Your task to perform on an android device: Open ESPN.com Image 0: 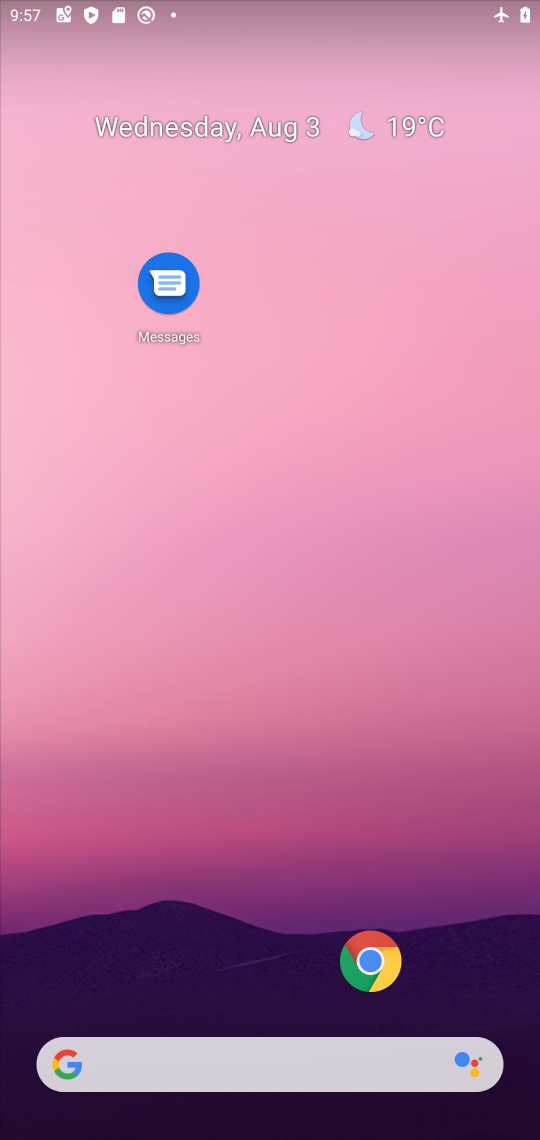
Step 0: click (358, 972)
Your task to perform on an android device: Open ESPN.com Image 1: 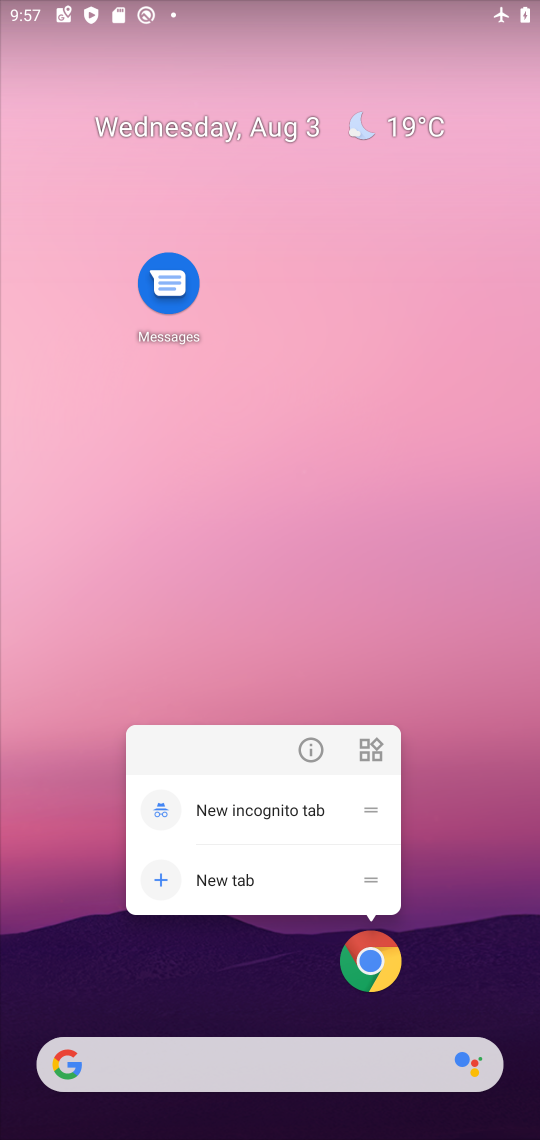
Step 1: click (402, 979)
Your task to perform on an android device: Open ESPN.com Image 2: 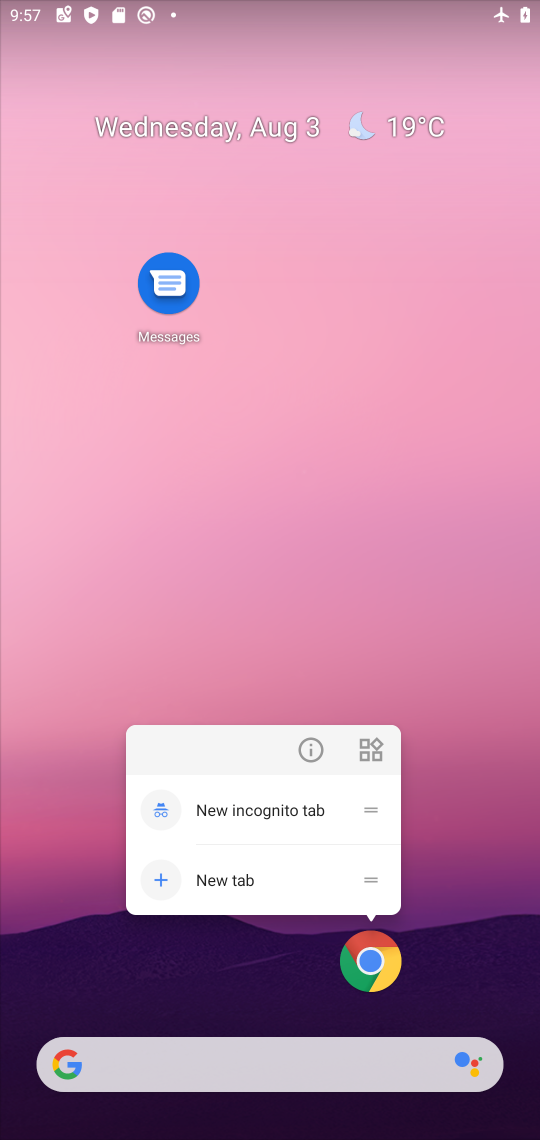
Step 2: click (397, 971)
Your task to perform on an android device: Open ESPN.com Image 3: 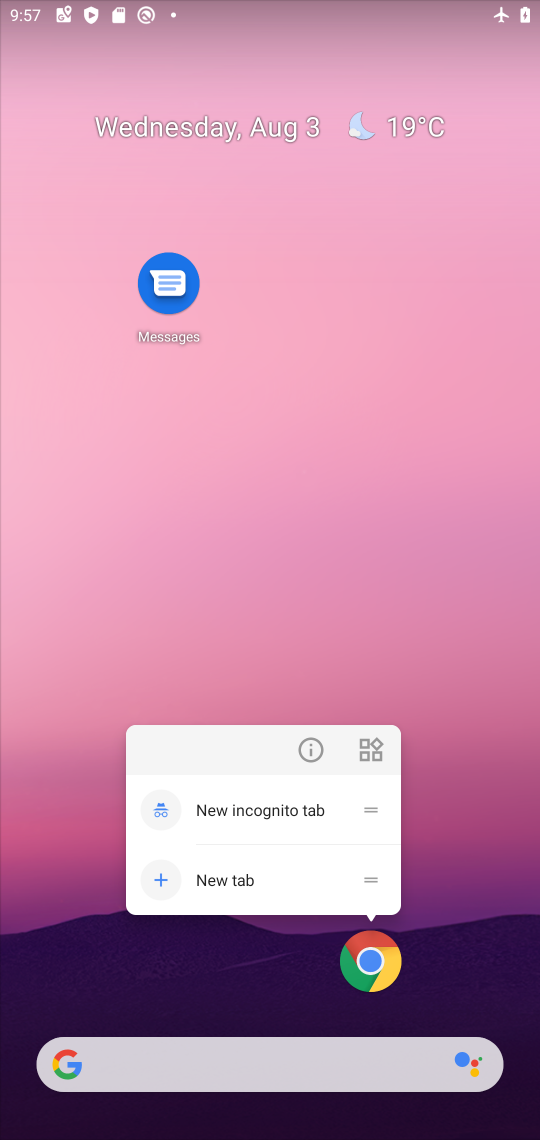
Step 3: click (377, 965)
Your task to perform on an android device: Open ESPN.com Image 4: 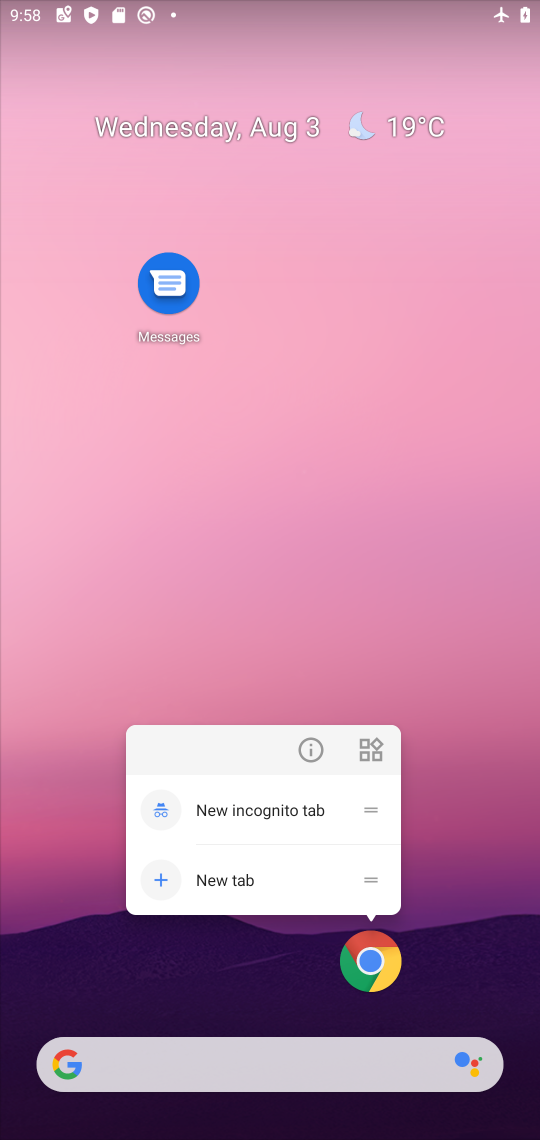
Step 4: click (377, 965)
Your task to perform on an android device: Open ESPN.com Image 5: 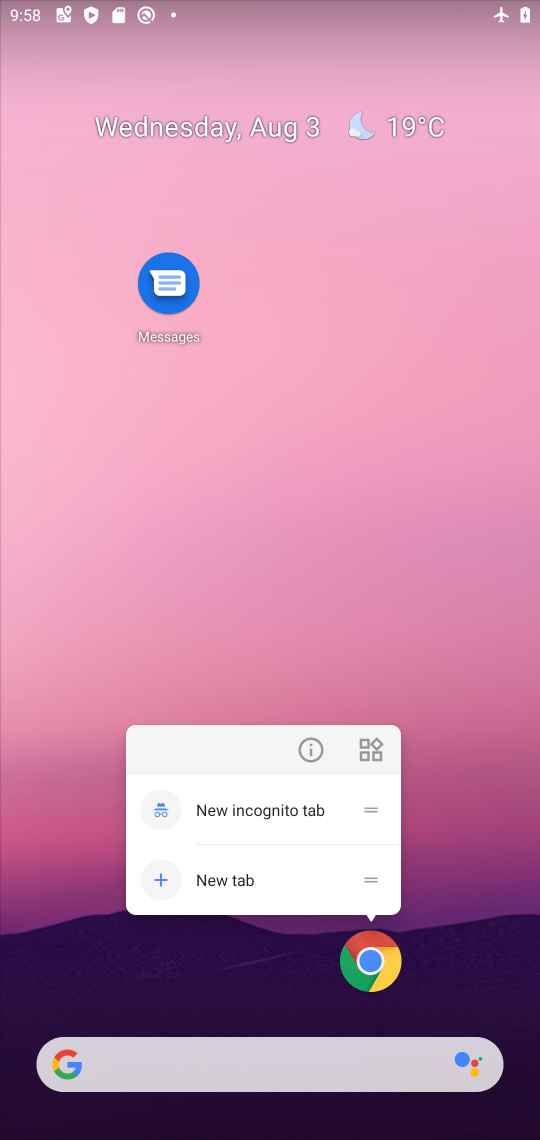
Step 5: click (376, 963)
Your task to perform on an android device: Open ESPN.com Image 6: 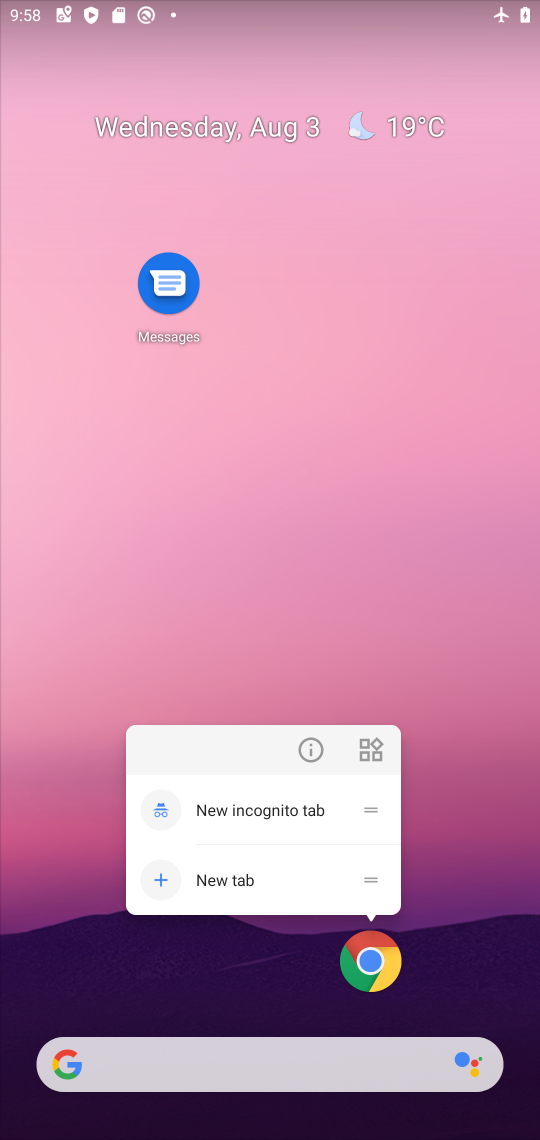
Step 6: click (392, 942)
Your task to perform on an android device: Open ESPN.com Image 7: 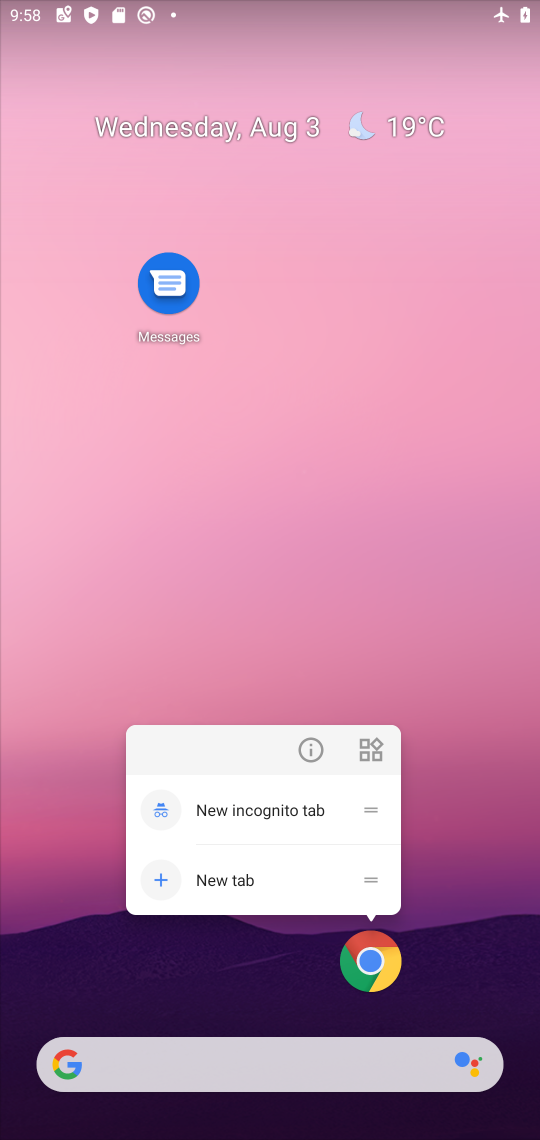
Step 7: click (392, 941)
Your task to perform on an android device: Open ESPN.com Image 8: 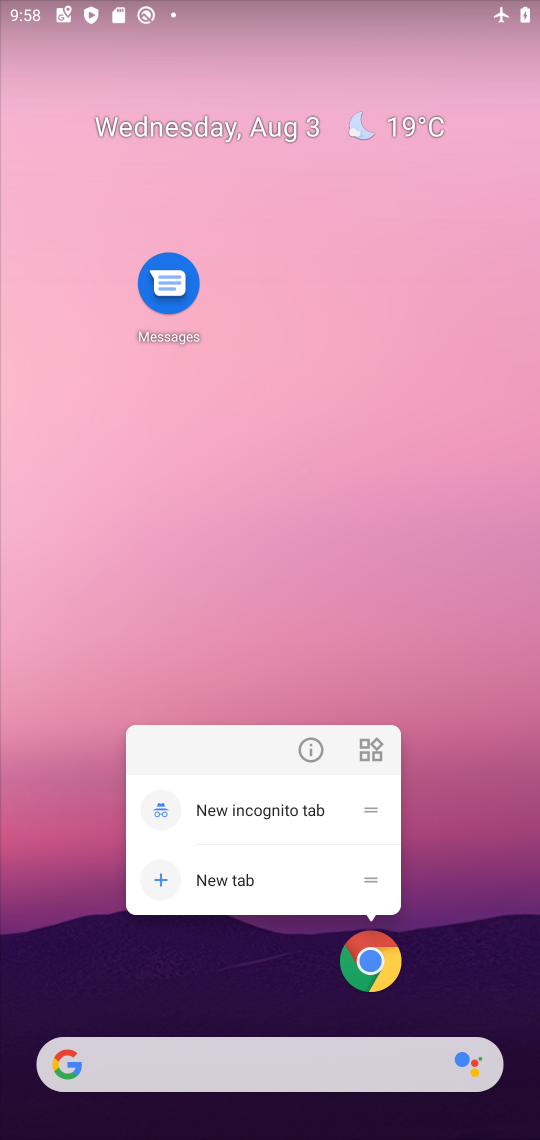
Step 8: click (392, 941)
Your task to perform on an android device: Open ESPN.com Image 9: 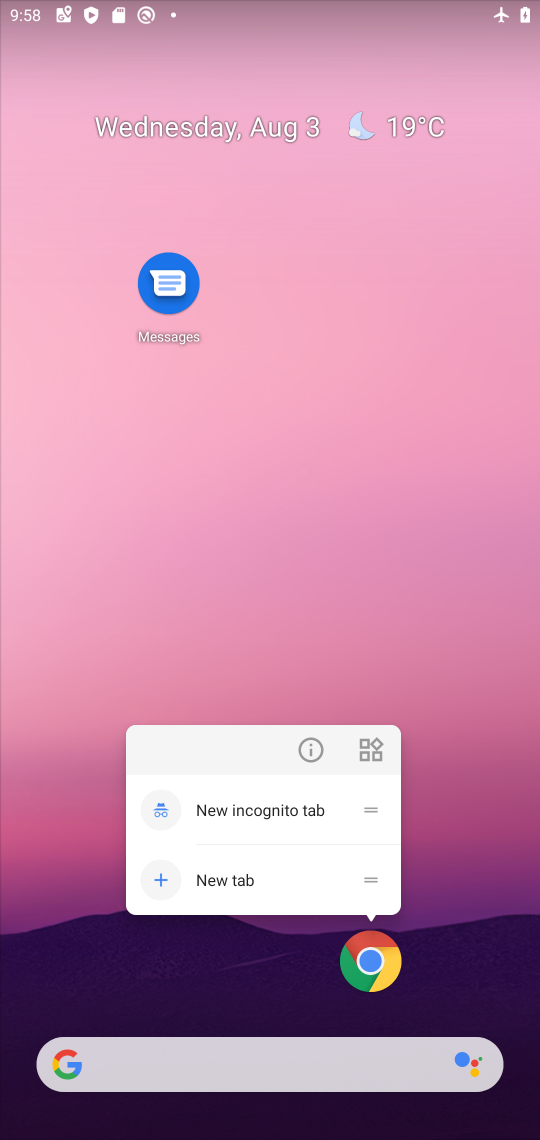
Step 9: click (390, 968)
Your task to perform on an android device: Open ESPN.com Image 10: 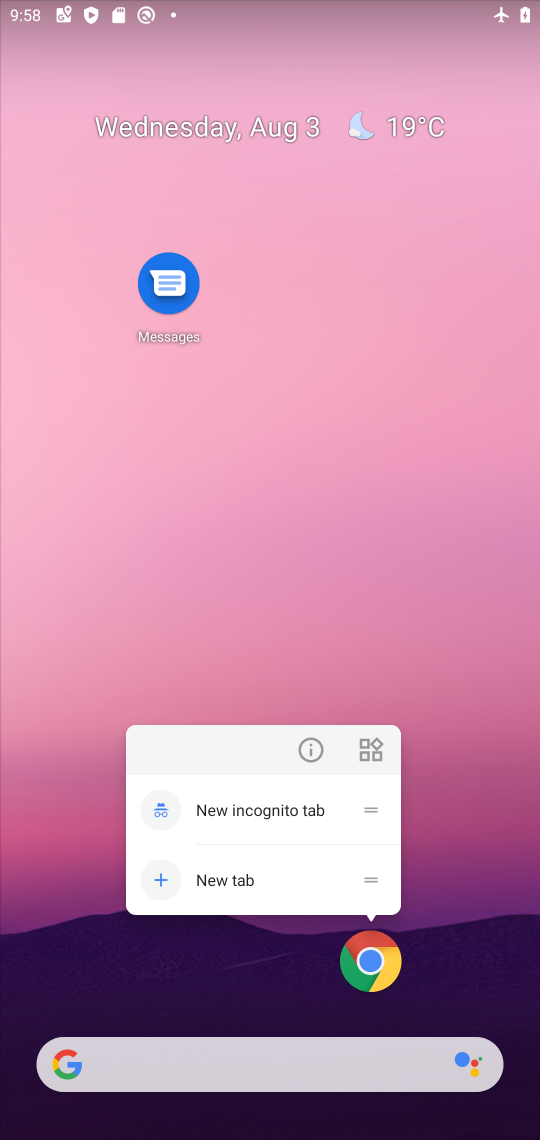
Step 10: click (316, 744)
Your task to perform on an android device: Open ESPN.com Image 11: 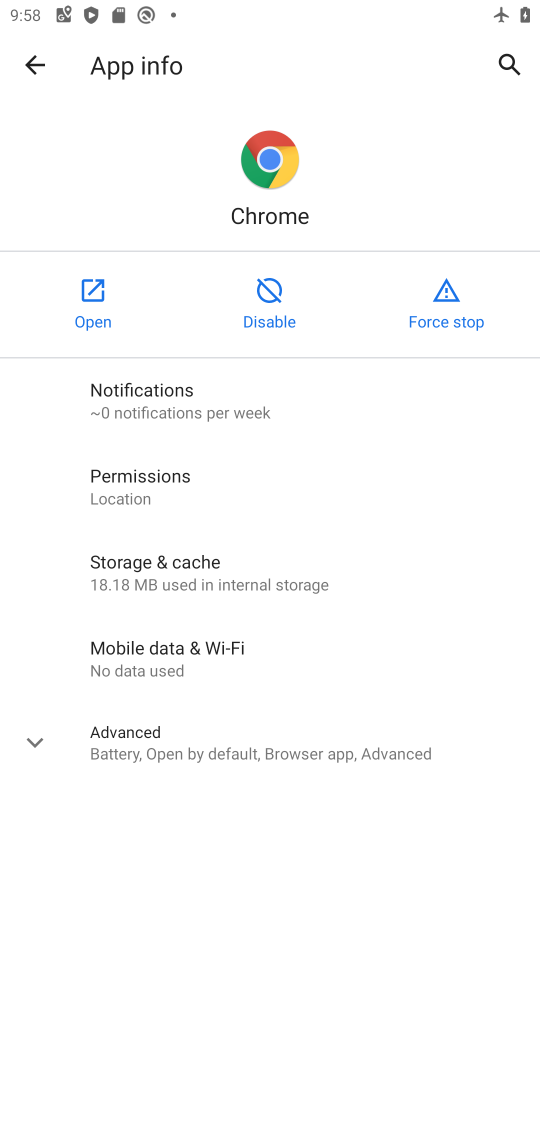
Step 11: click (101, 287)
Your task to perform on an android device: Open ESPN.com Image 12: 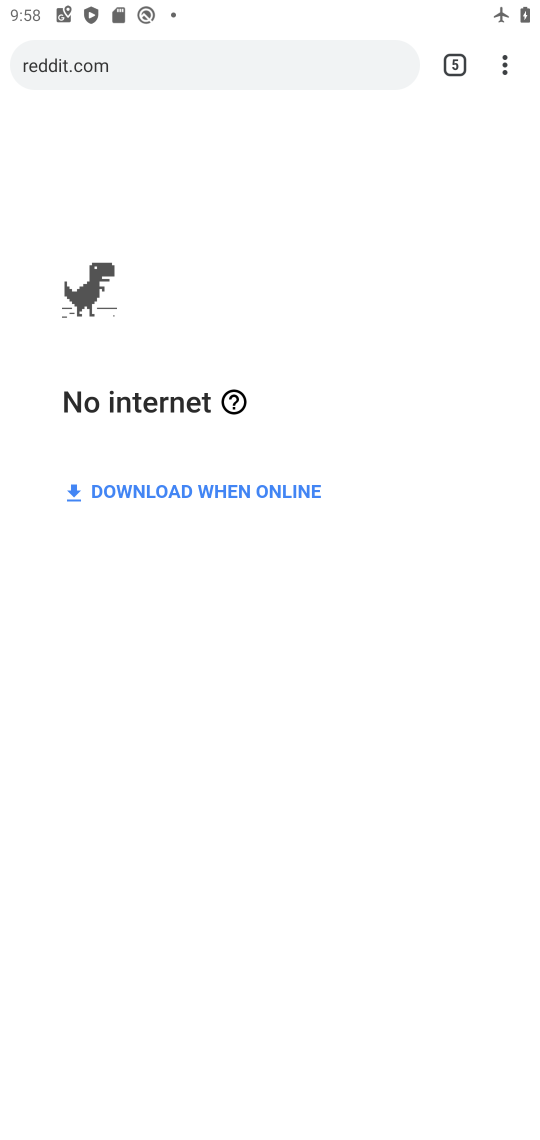
Step 12: click (284, 72)
Your task to perform on an android device: Open ESPN.com Image 13: 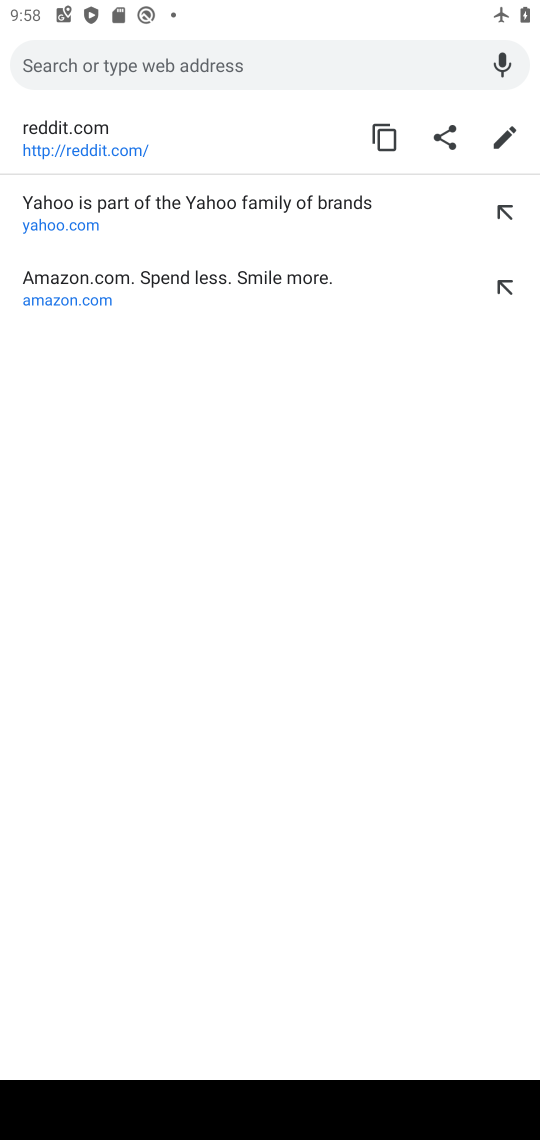
Step 13: type "ESPN.com"
Your task to perform on an android device: Open ESPN.com Image 14: 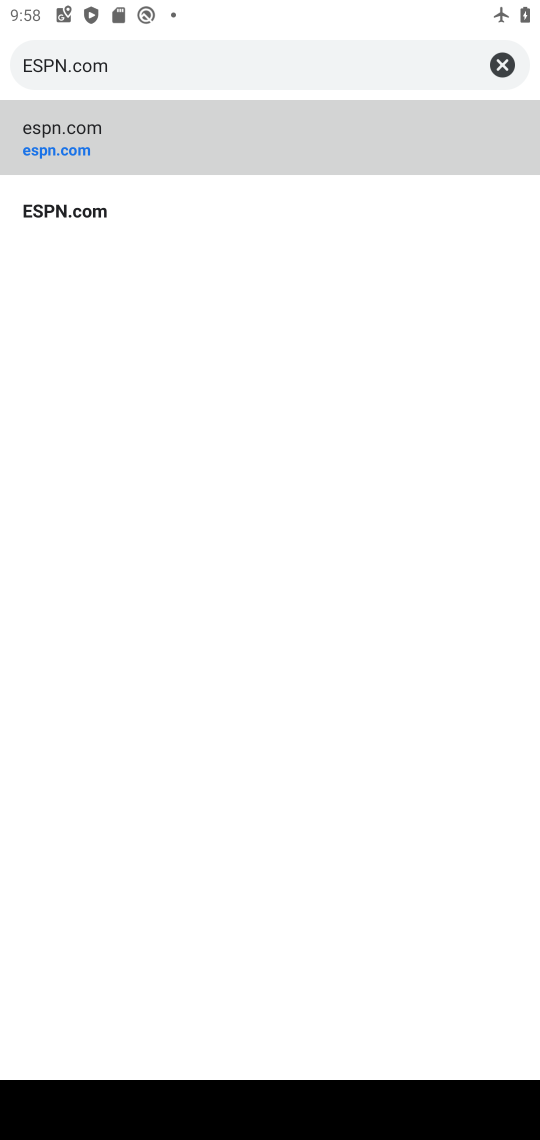
Step 14: click (94, 119)
Your task to perform on an android device: Open ESPN.com Image 15: 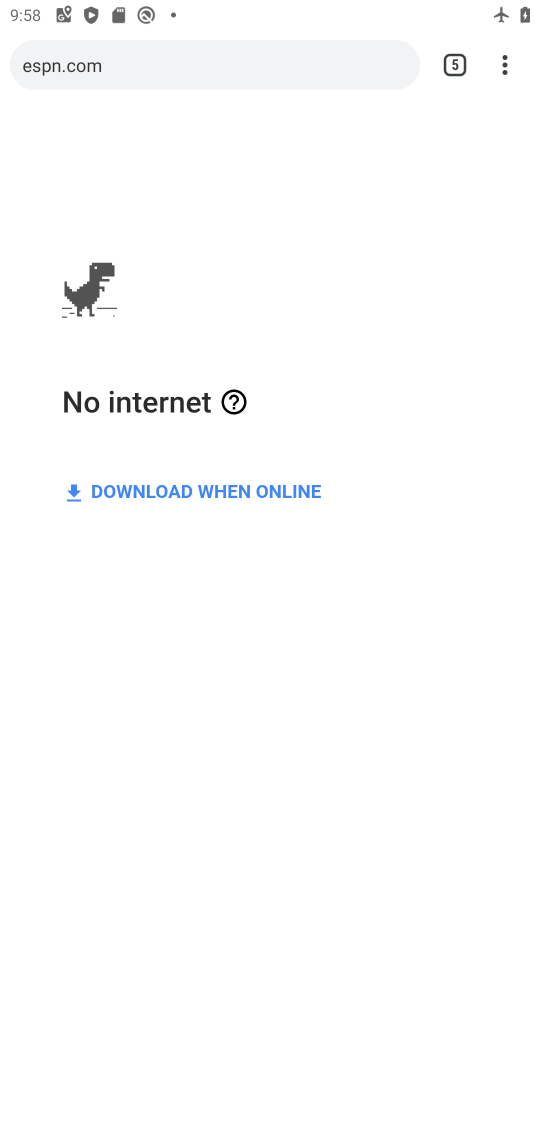
Step 15: task complete